Your task to perform on an android device: Search for Italian restaurants on Maps Image 0: 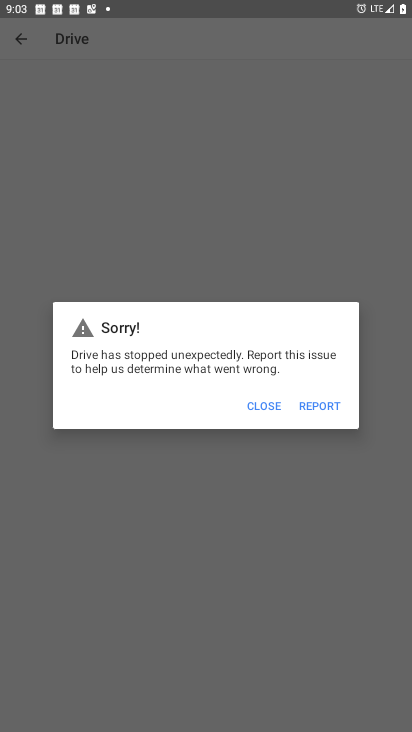
Step 0: press home button
Your task to perform on an android device: Search for Italian restaurants on Maps Image 1: 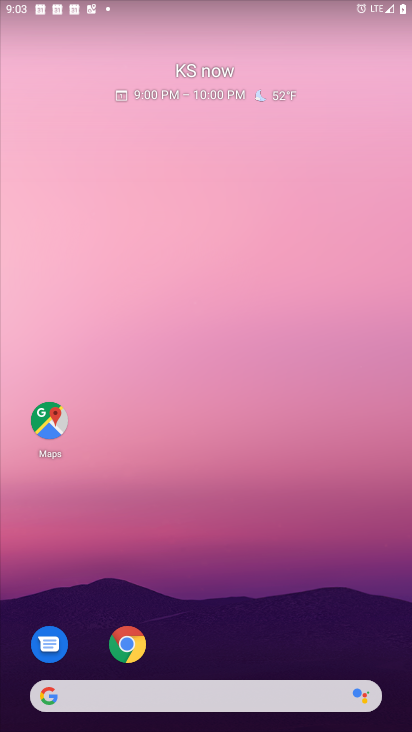
Step 1: click (47, 415)
Your task to perform on an android device: Search for Italian restaurants on Maps Image 2: 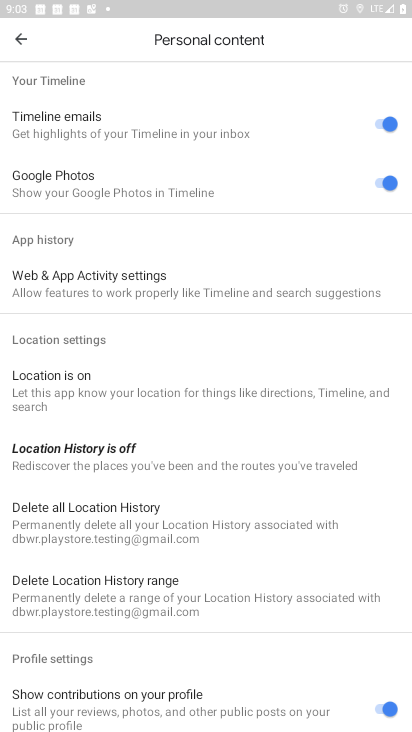
Step 2: press back button
Your task to perform on an android device: Search for Italian restaurants on Maps Image 3: 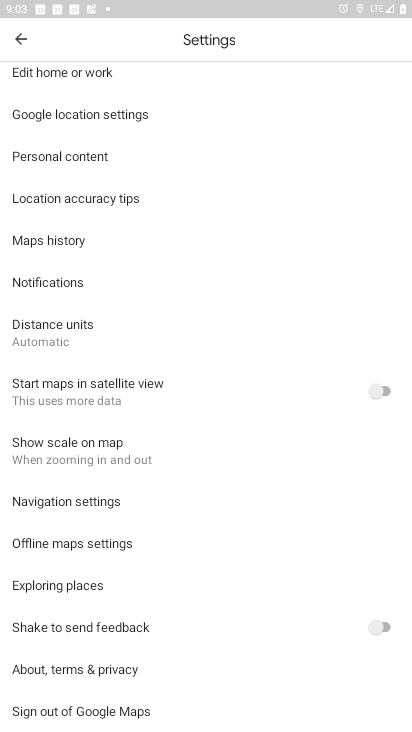
Step 3: press back button
Your task to perform on an android device: Search for Italian restaurants on Maps Image 4: 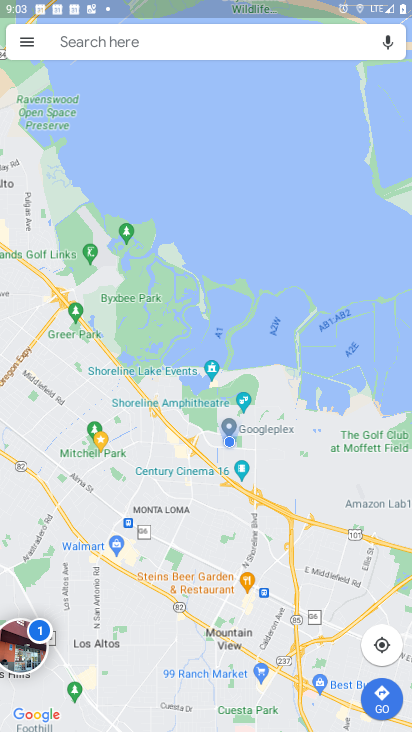
Step 4: click (102, 36)
Your task to perform on an android device: Search for Italian restaurants on Maps Image 5: 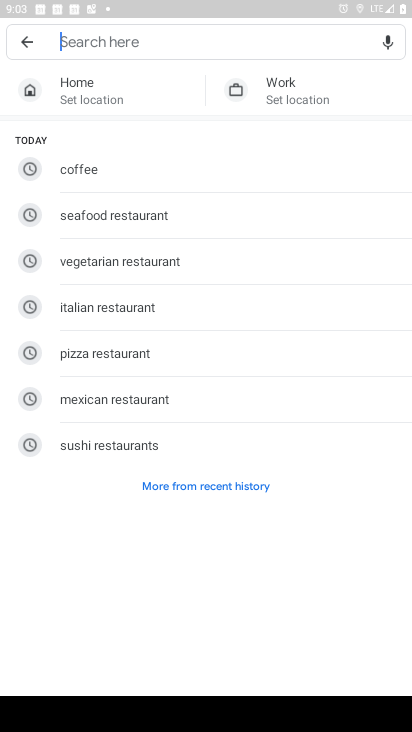
Step 5: type "italian restaurants"
Your task to perform on an android device: Search for Italian restaurants on Maps Image 6: 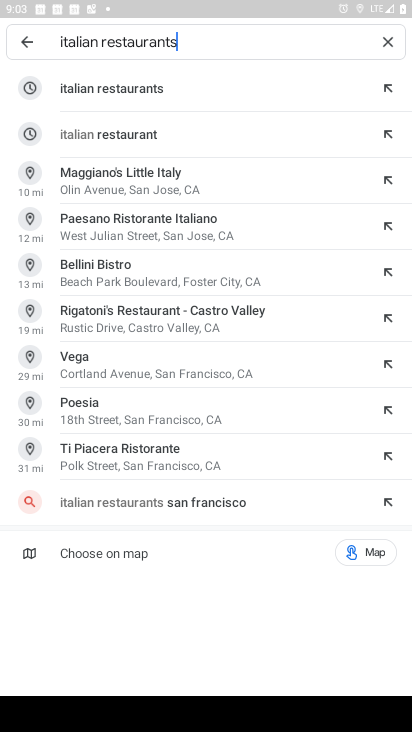
Step 6: click (104, 87)
Your task to perform on an android device: Search for Italian restaurants on Maps Image 7: 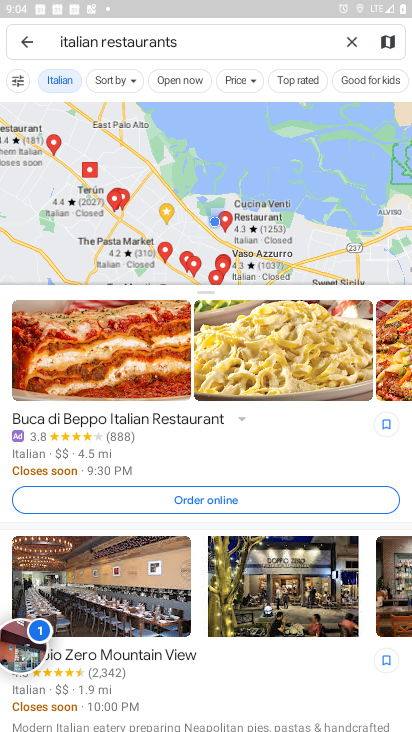
Step 7: task complete